Your task to perform on an android device: change notification settings in the gmail app Image 0: 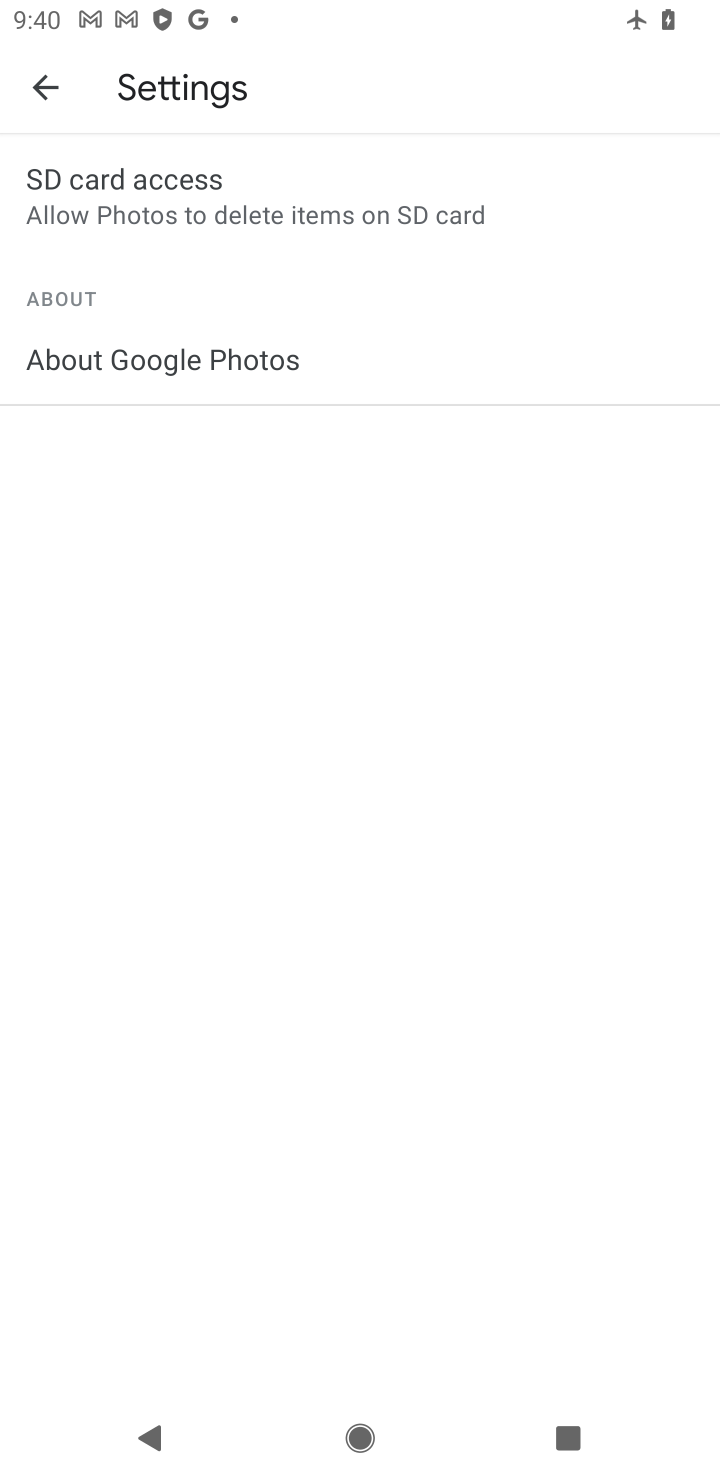
Step 0: press home button
Your task to perform on an android device: change notification settings in the gmail app Image 1: 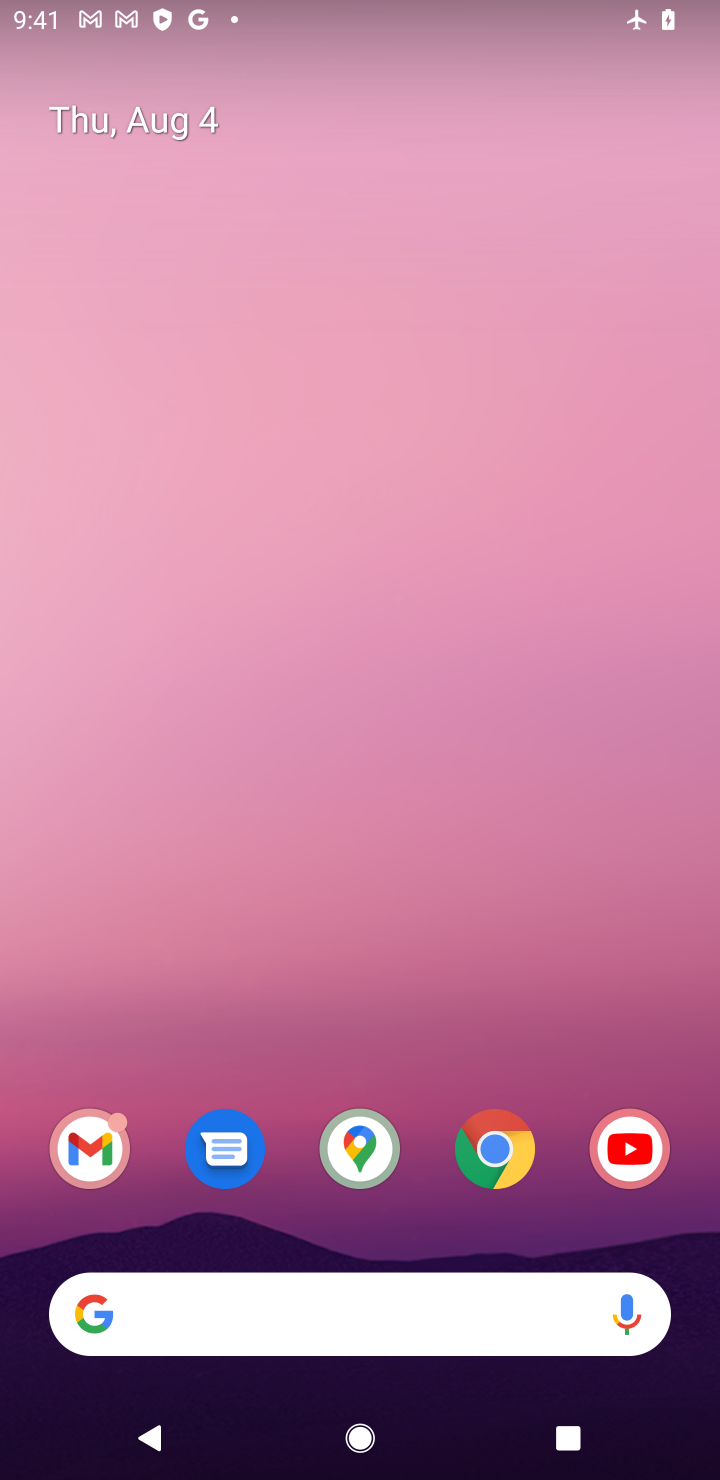
Step 1: click (91, 1156)
Your task to perform on an android device: change notification settings in the gmail app Image 2: 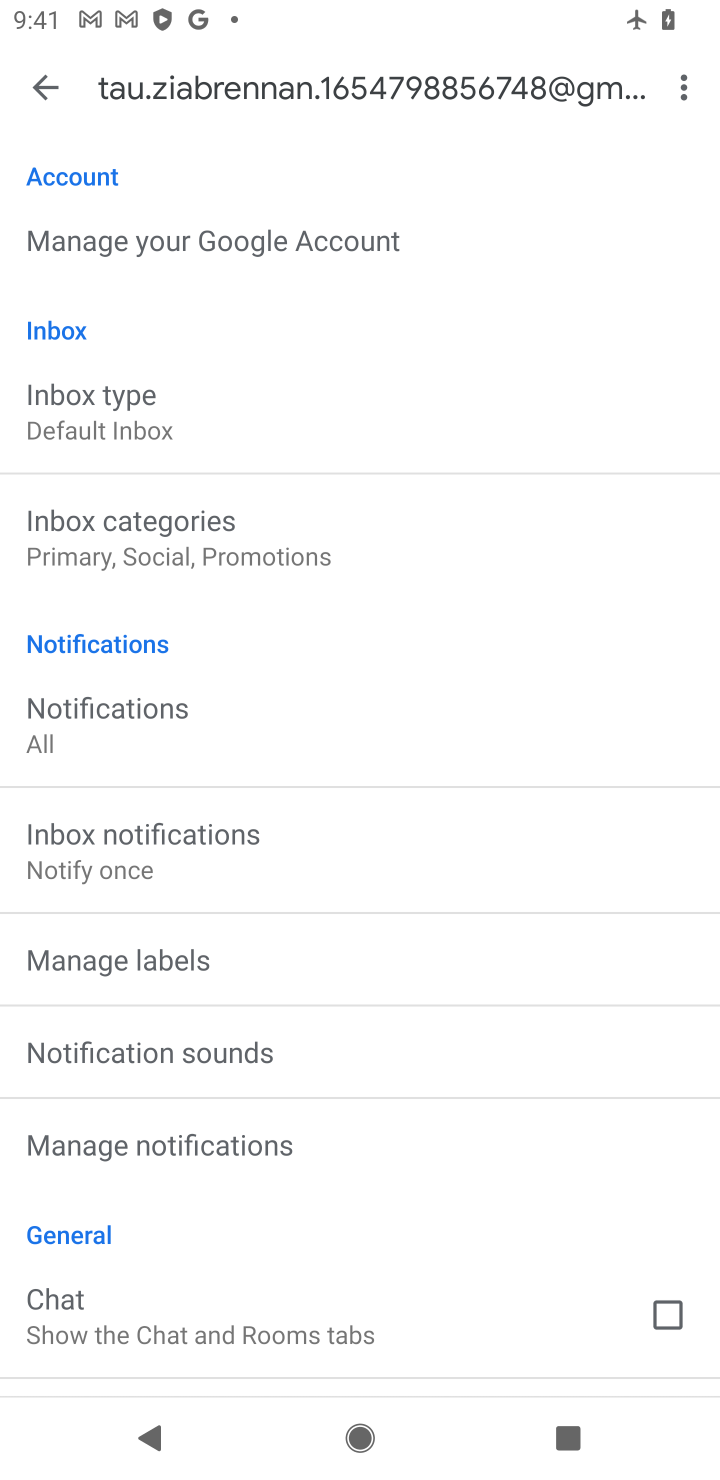
Step 2: click (133, 1153)
Your task to perform on an android device: change notification settings in the gmail app Image 3: 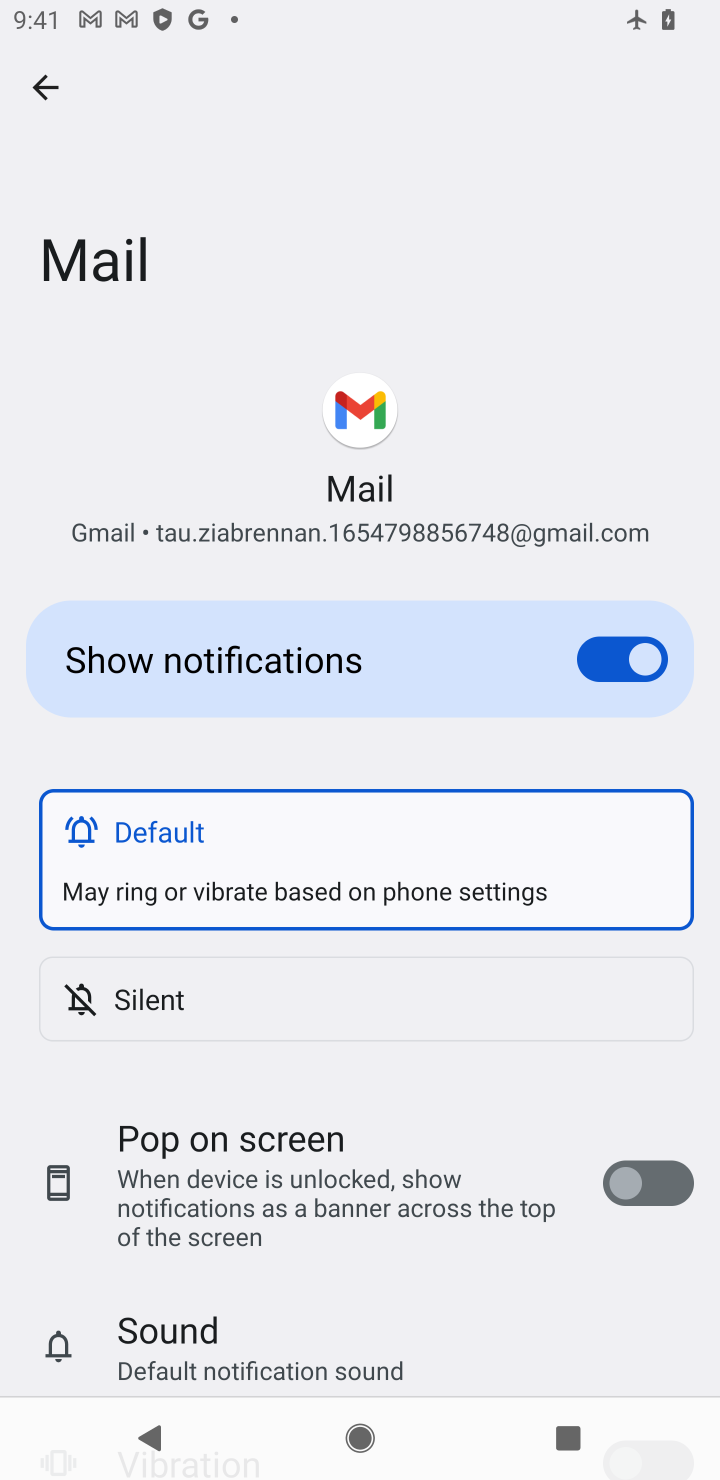
Step 3: click (596, 654)
Your task to perform on an android device: change notification settings in the gmail app Image 4: 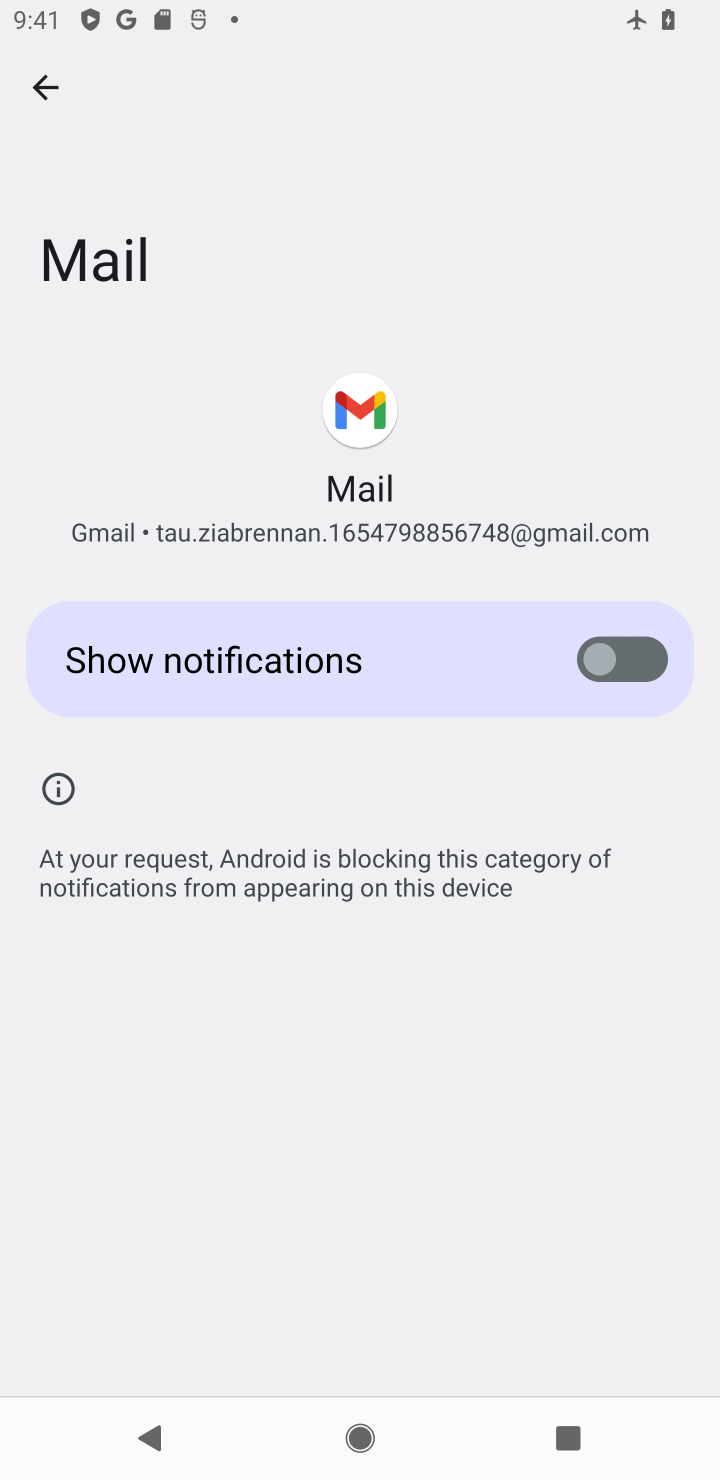
Step 4: task complete